Your task to perform on an android device: choose inbox layout in the gmail app Image 0: 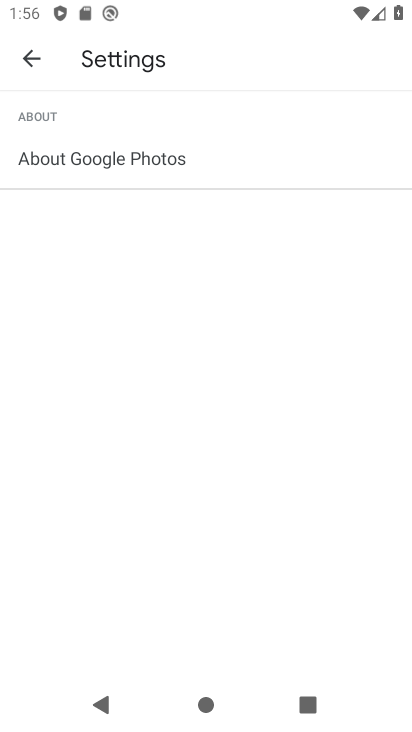
Step 0: press home button
Your task to perform on an android device: choose inbox layout in the gmail app Image 1: 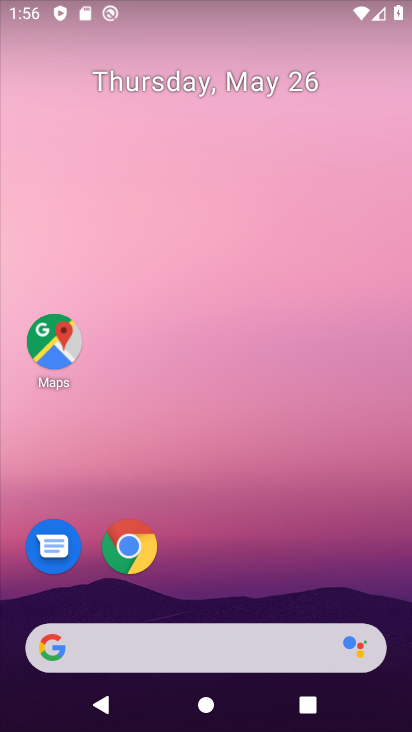
Step 1: drag from (237, 570) to (297, 106)
Your task to perform on an android device: choose inbox layout in the gmail app Image 2: 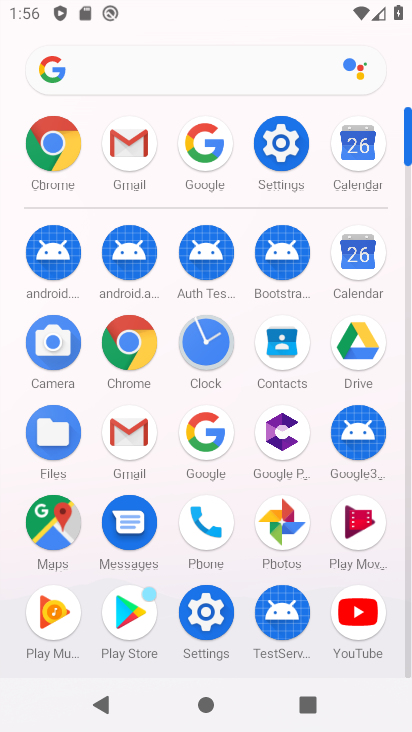
Step 2: click (132, 144)
Your task to perform on an android device: choose inbox layout in the gmail app Image 3: 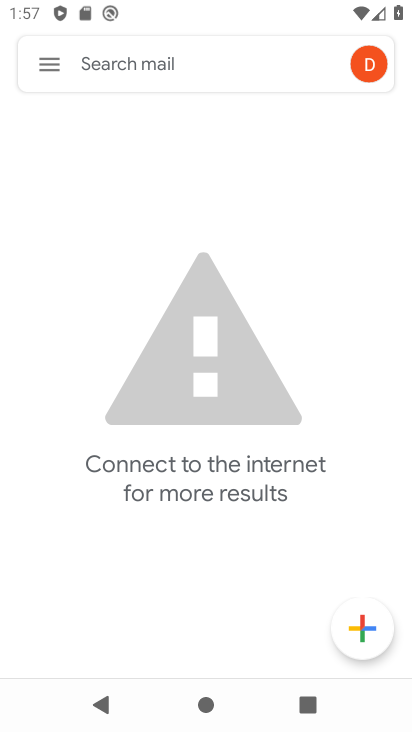
Step 3: click (46, 70)
Your task to perform on an android device: choose inbox layout in the gmail app Image 4: 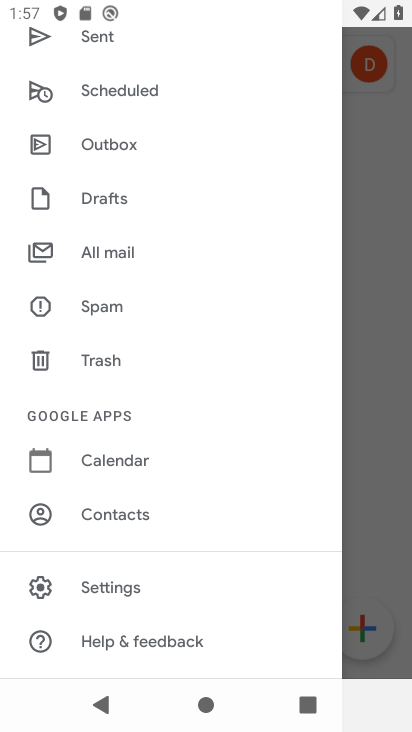
Step 4: click (143, 589)
Your task to perform on an android device: choose inbox layout in the gmail app Image 5: 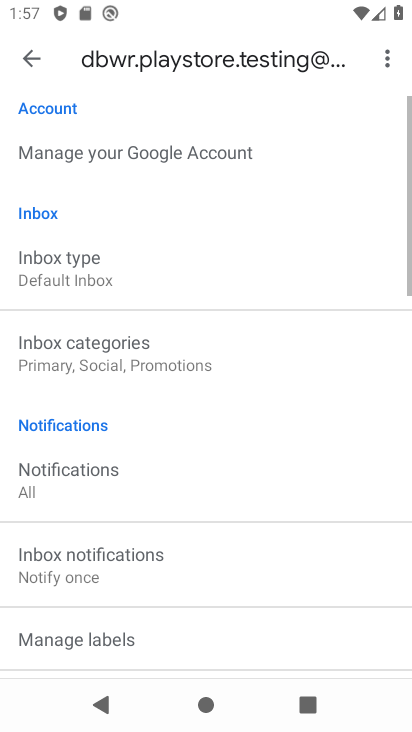
Step 5: click (122, 263)
Your task to perform on an android device: choose inbox layout in the gmail app Image 6: 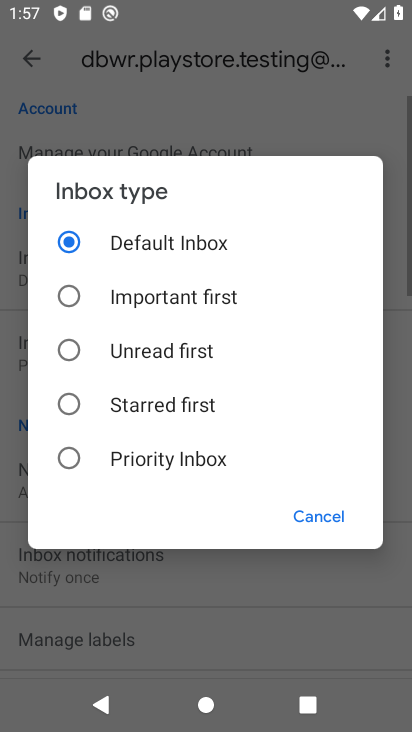
Step 6: click (63, 286)
Your task to perform on an android device: choose inbox layout in the gmail app Image 7: 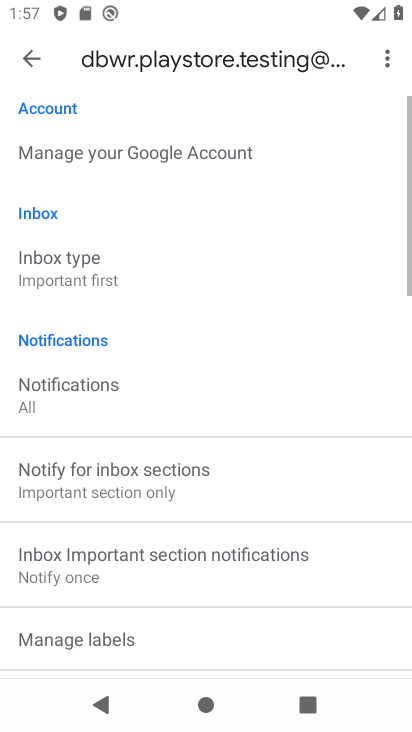
Step 7: task complete